Your task to perform on an android device: Go to Amazon Image 0: 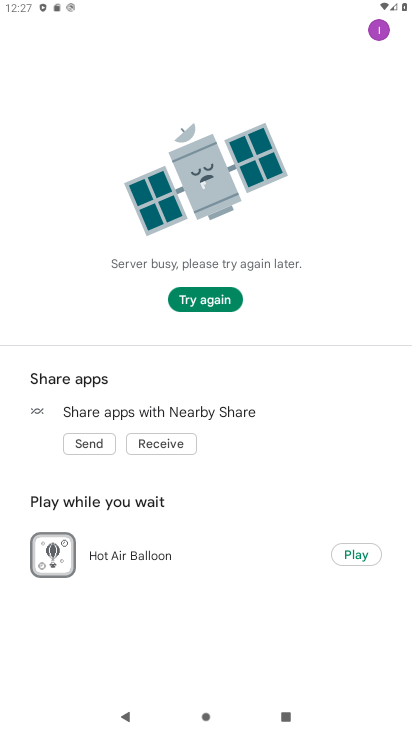
Step 0: press home button
Your task to perform on an android device: Go to Amazon Image 1: 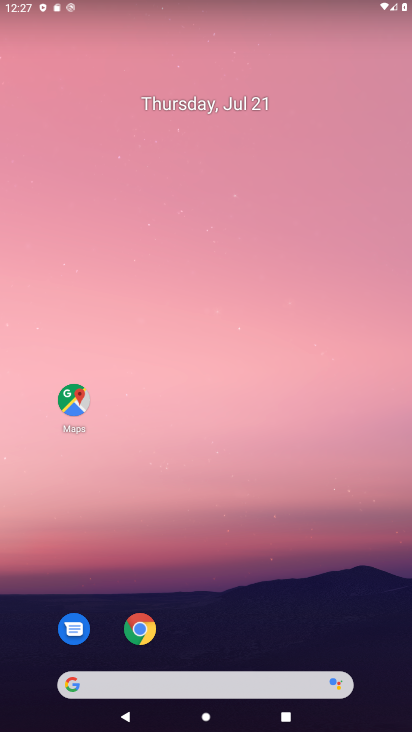
Step 1: drag from (388, 640) to (277, 78)
Your task to perform on an android device: Go to Amazon Image 2: 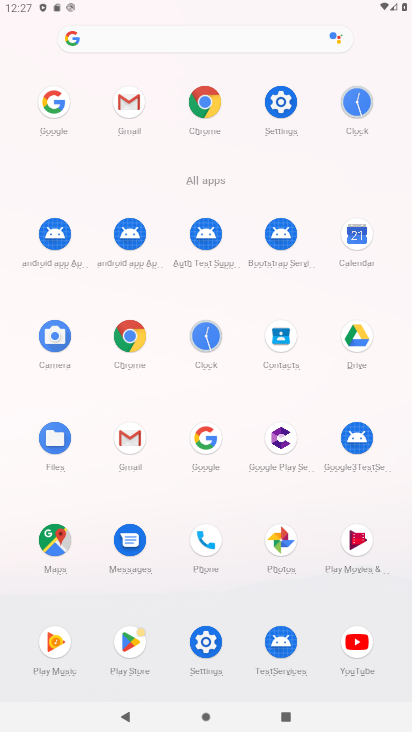
Step 2: click (210, 95)
Your task to perform on an android device: Go to Amazon Image 3: 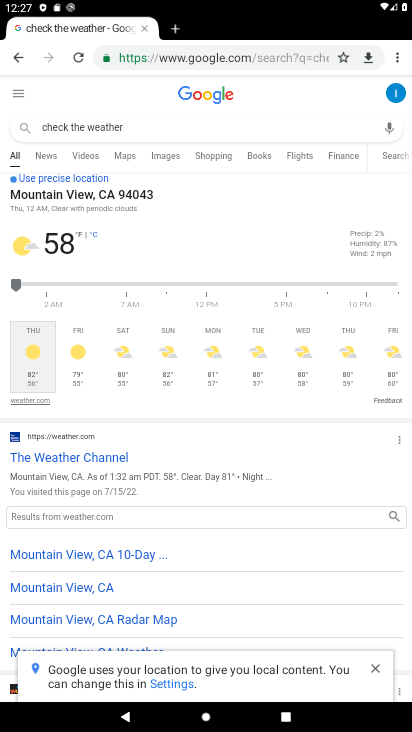
Step 3: click (175, 25)
Your task to perform on an android device: Go to Amazon Image 4: 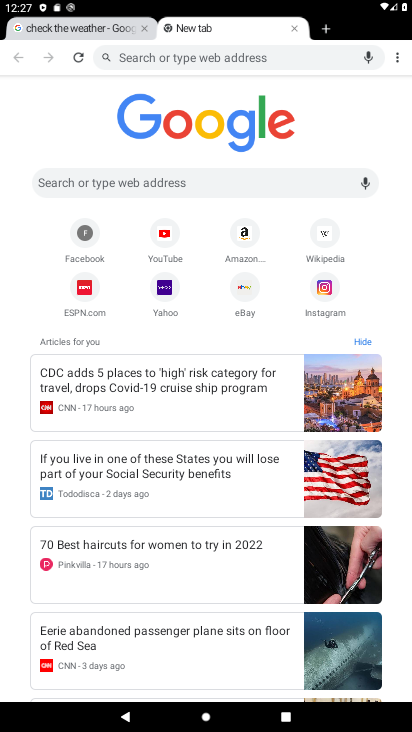
Step 4: click (246, 232)
Your task to perform on an android device: Go to Amazon Image 5: 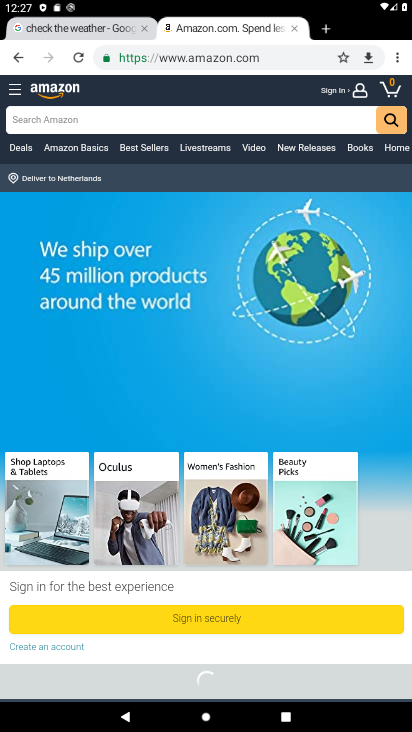
Step 5: task complete